Your task to perform on an android device: turn on the 24-hour format for clock Image 0: 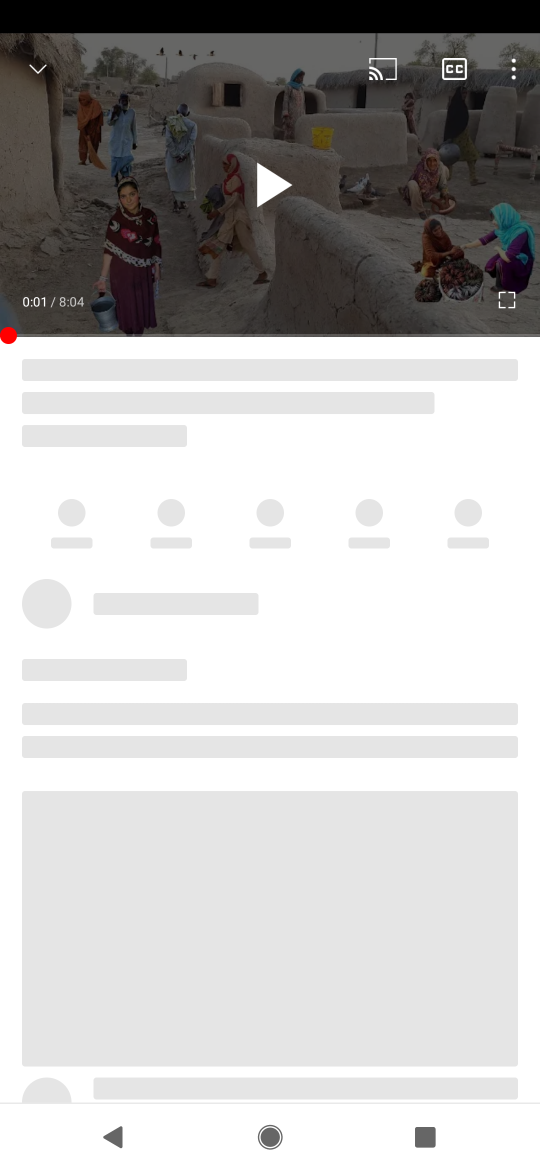
Step 0: press home button
Your task to perform on an android device: turn on the 24-hour format for clock Image 1: 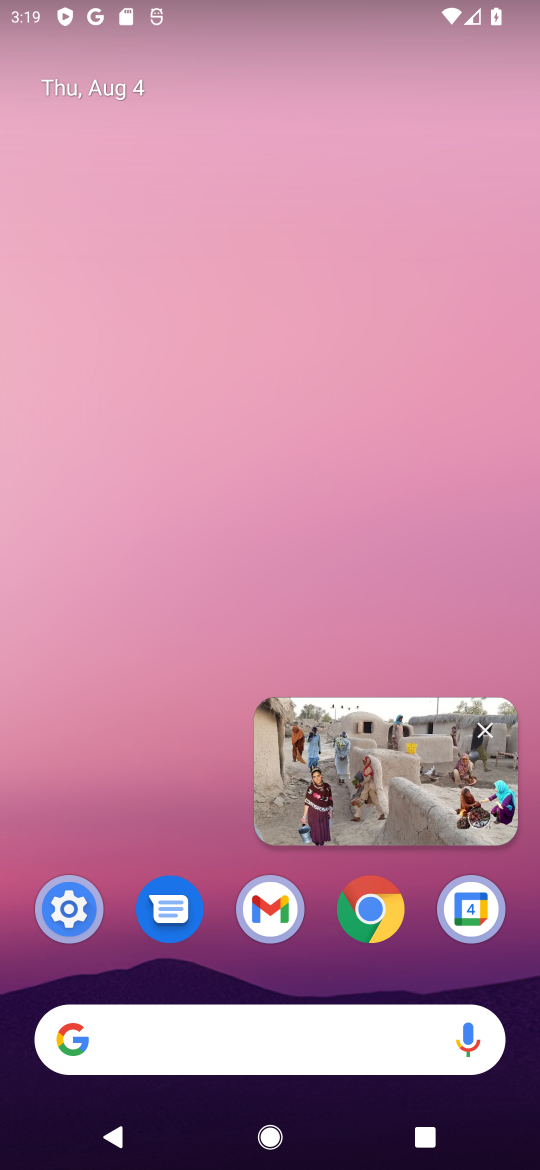
Step 1: click (484, 724)
Your task to perform on an android device: turn on the 24-hour format for clock Image 2: 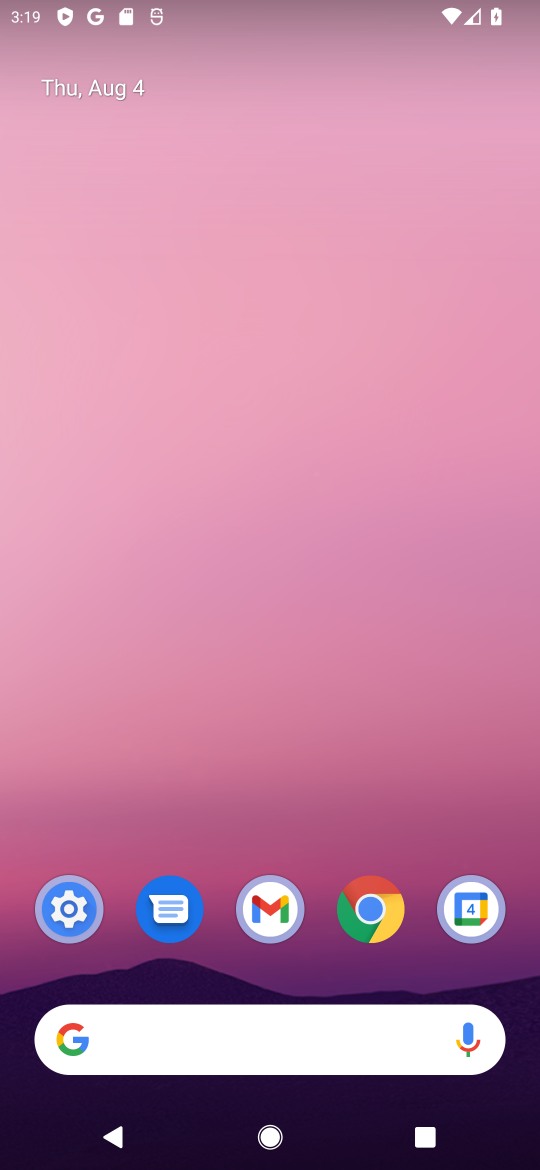
Step 2: drag from (306, 1064) to (363, 201)
Your task to perform on an android device: turn on the 24-hour format for clock Image 3: 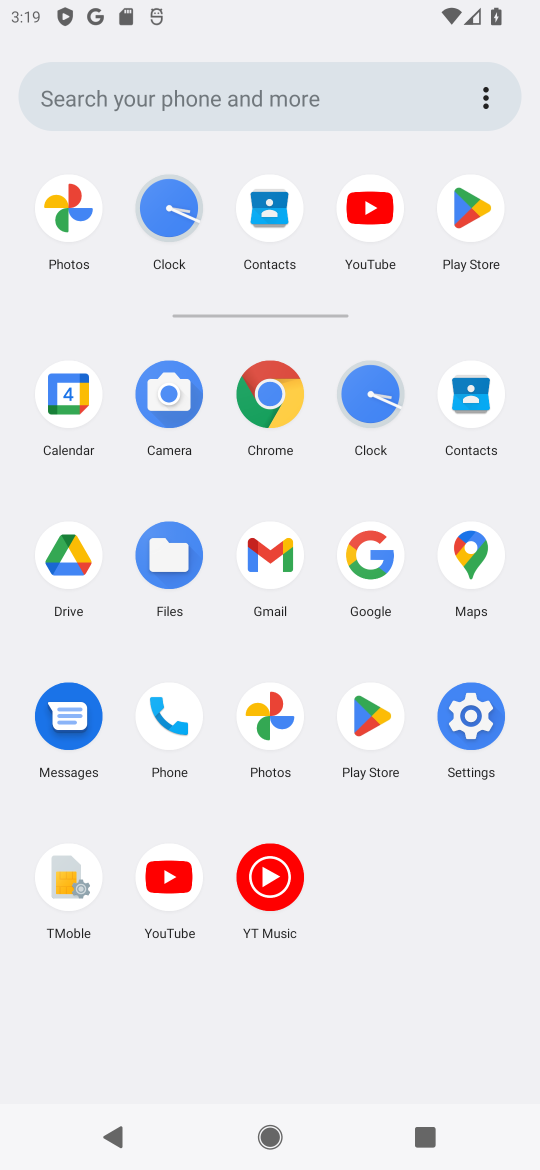
Step 3: click (175, 203)
Your task to perform on an android device: turn on the 24-hour format for clock Image 4: 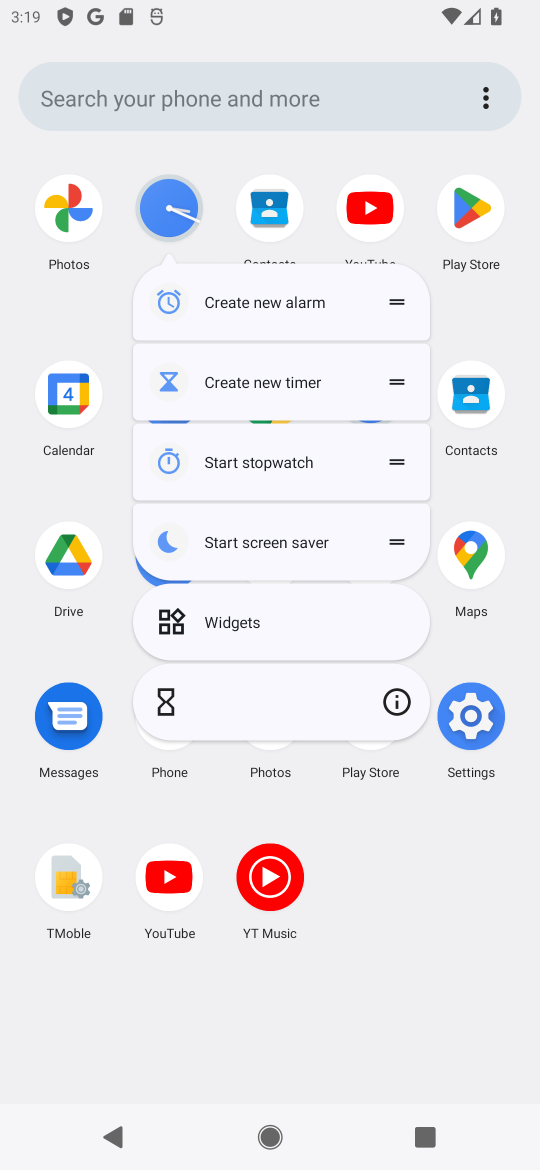
Step 4: click (174, 200)
Your task to perform on an android device: turn on the 24-hour format for clock Image 5: 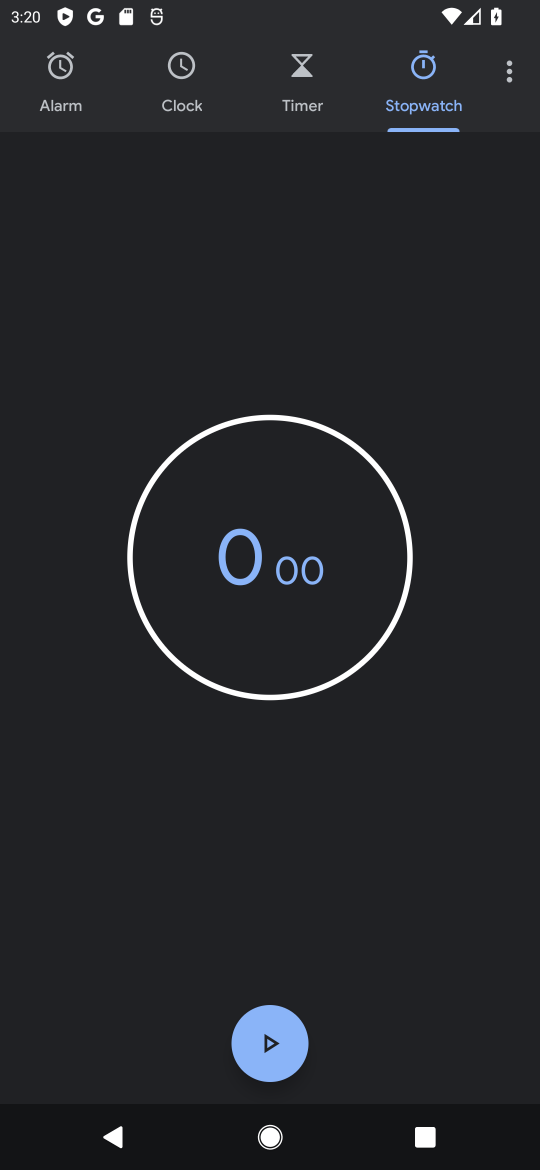
Step 5: click (508, 80)
Your task to perform on an android device: turn on the 24-hour format for clock Image 6: 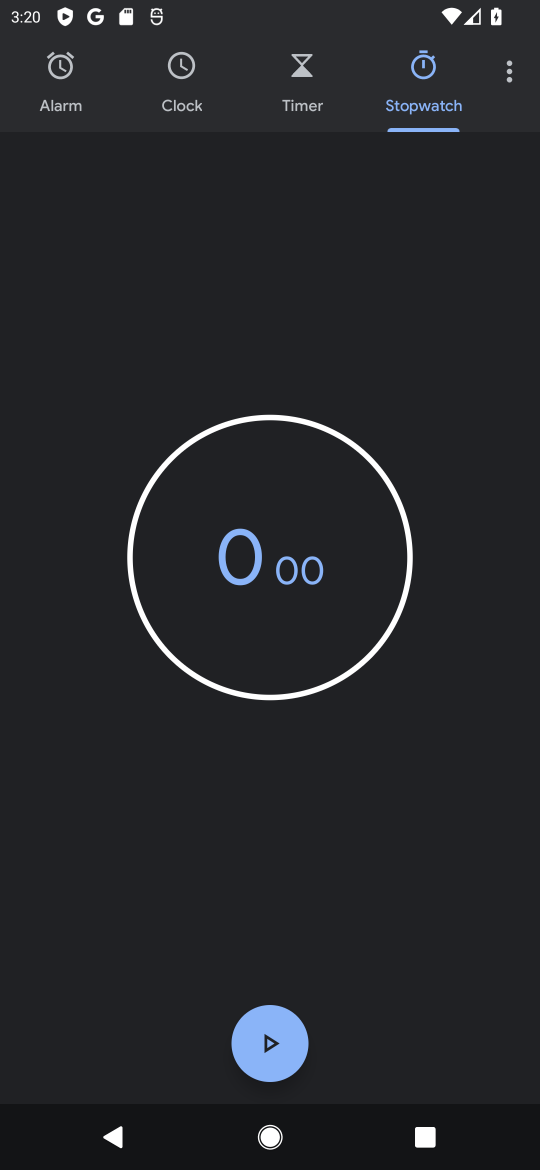
Step 6: click (508, 80)
Your task to perform on an android device: turn on the 24-hour format for clock Image 7: 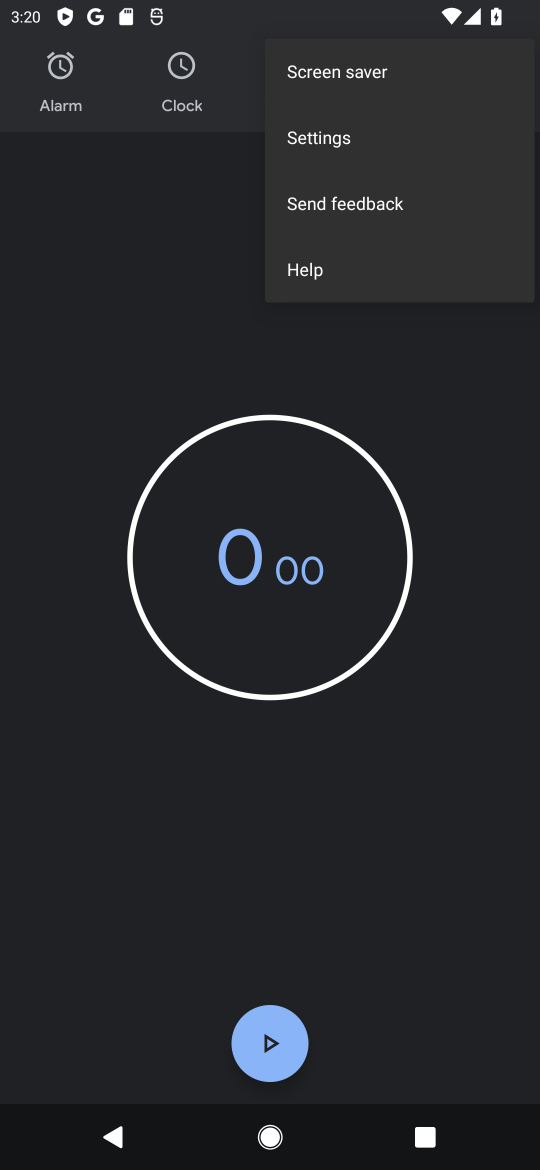
Step 7: click (336, 145)
Your task to perform on an android device: turn on the 24-hour format for clock Image 8: 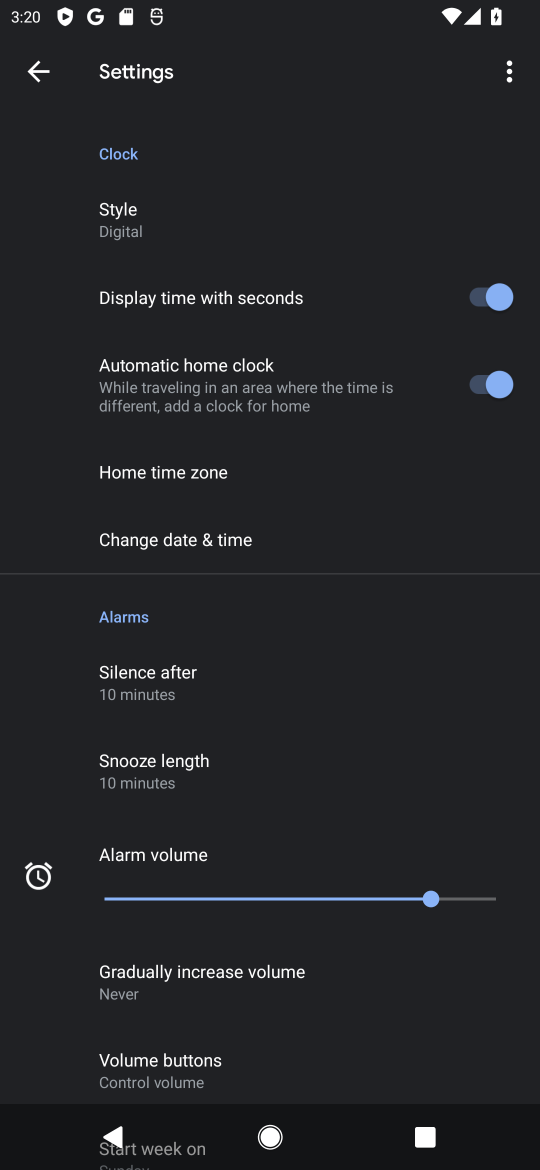
Step 8: click (176, 554)
Your task to perform on an android device: turn on the 24-hour format for clock Image 9: 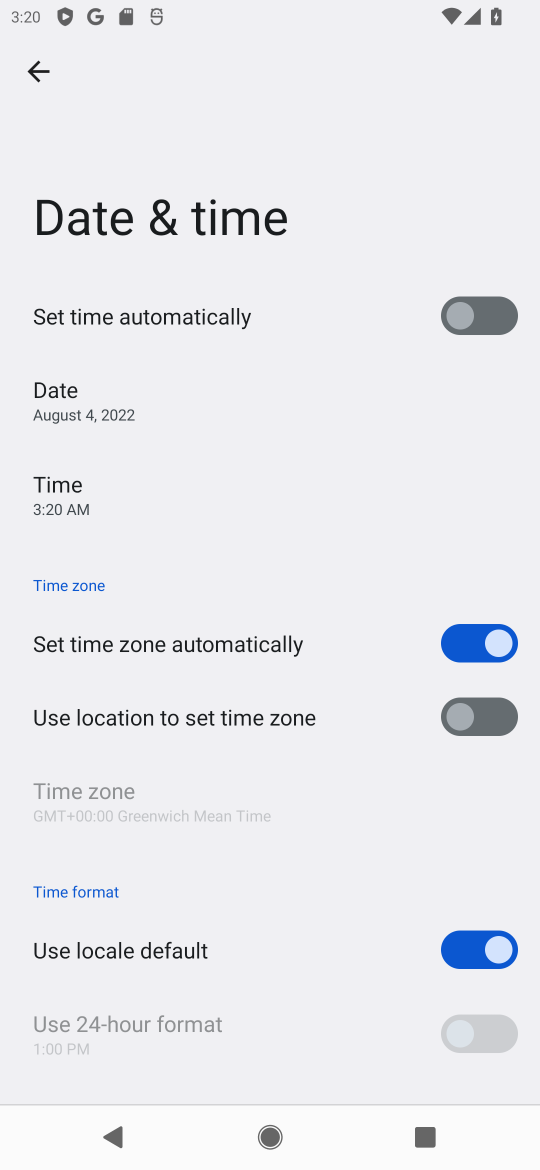
Step 9: drag from (234, 889) to (266, 408)
Your task to perform on an android device: turn on the 24-hour format for clock Image 10: 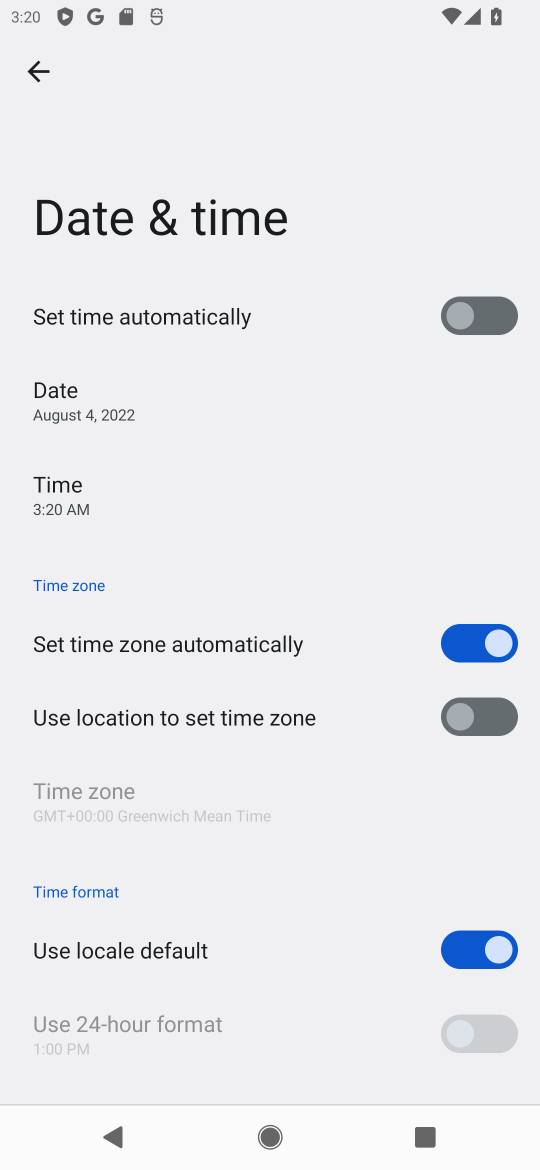
Step 10: click (461, 950)
Your task to perform on an android device: turn on the 24-hour format for clock Image 11: 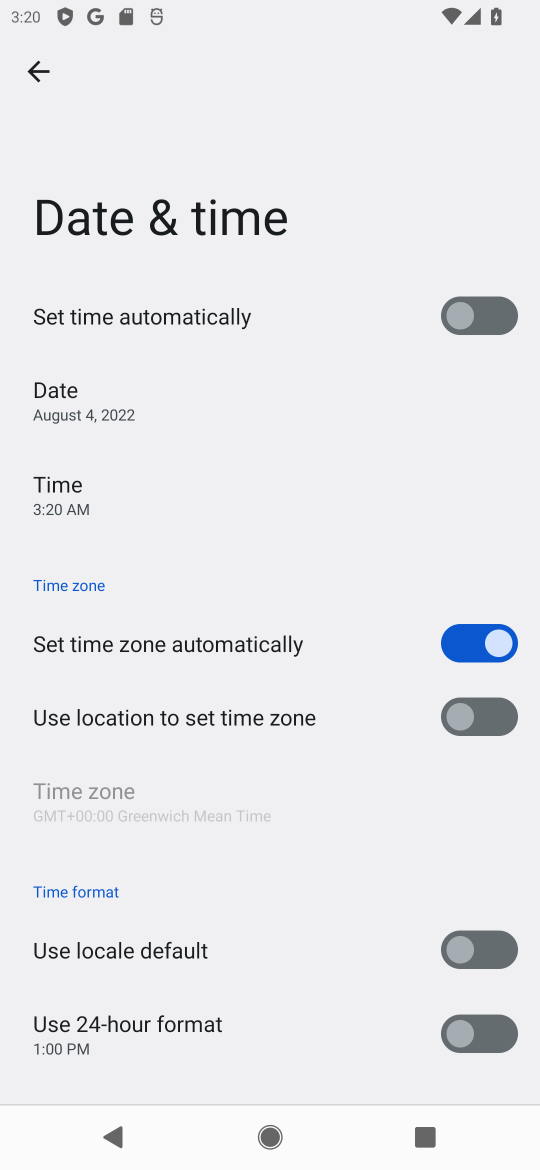
Step 11: click (498, 1033)
Your task to perform on an android device: turn on the 24-hour format for clock Image 12: 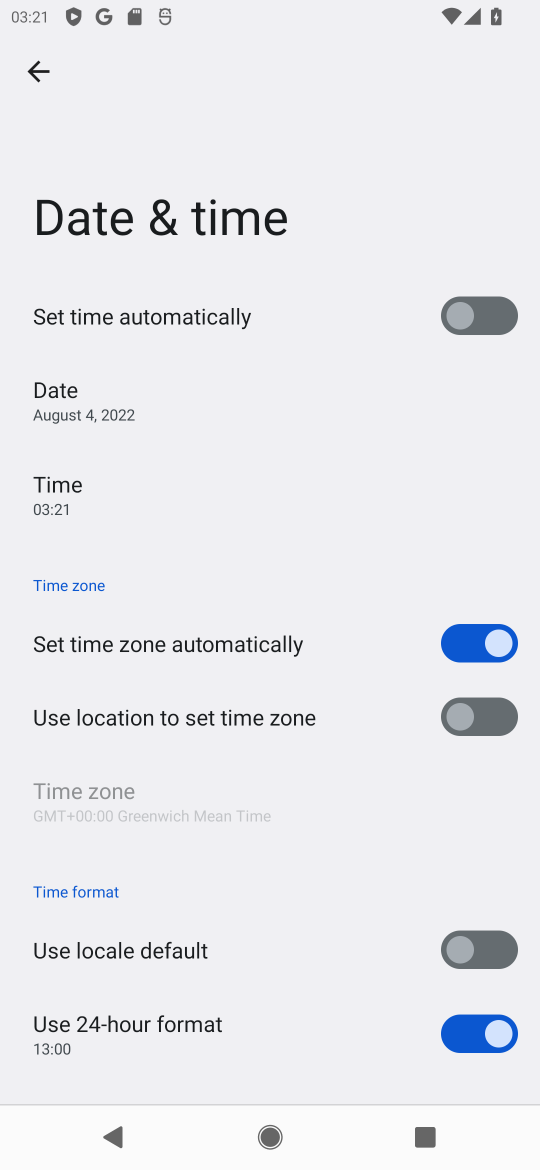
Step 12: task complete